Your task to perform on an android device: Empty the shopping cart on amazon. Add "rayovac triple a" to the cart on amazon Image 0: 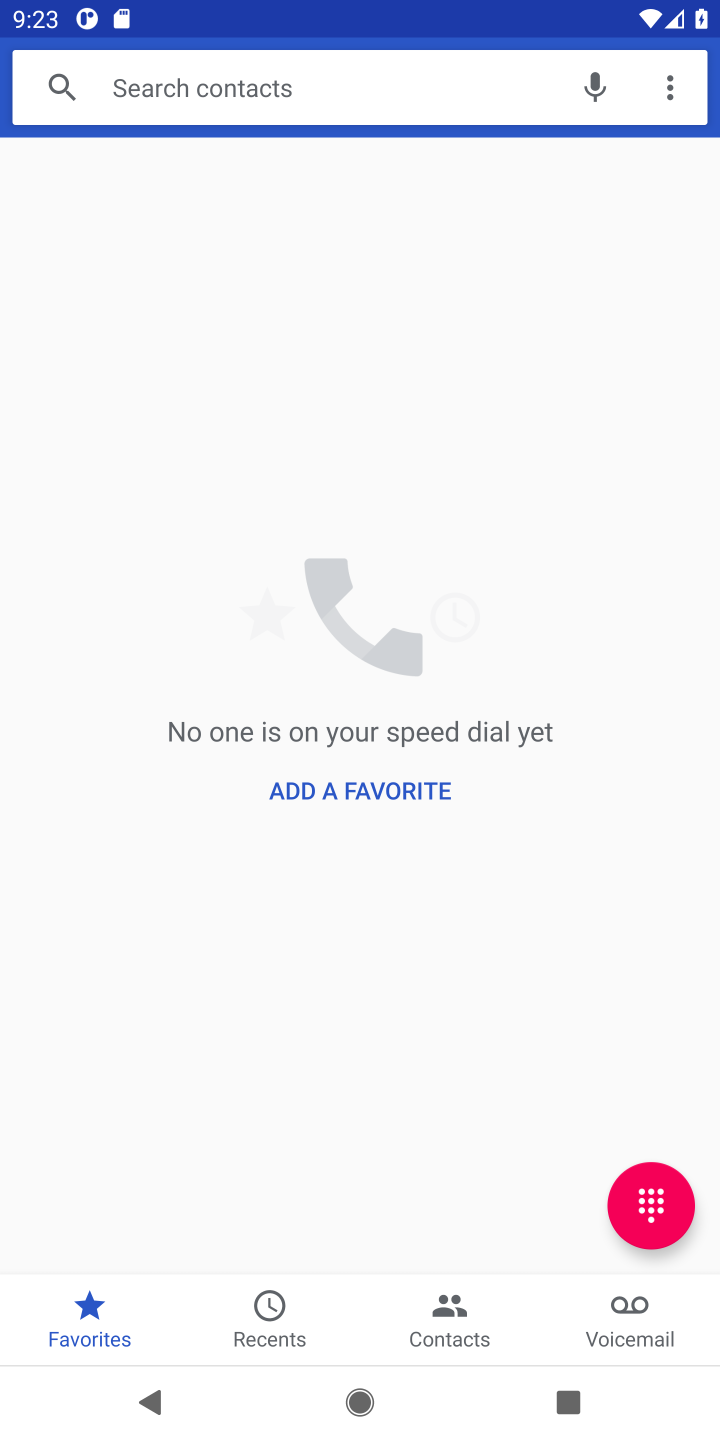
Step 0: press home button
Your task to perform on an android device: Empty the shopping cart on amazon. Add "rayovac triple a" to the cart on amazon Image 1: 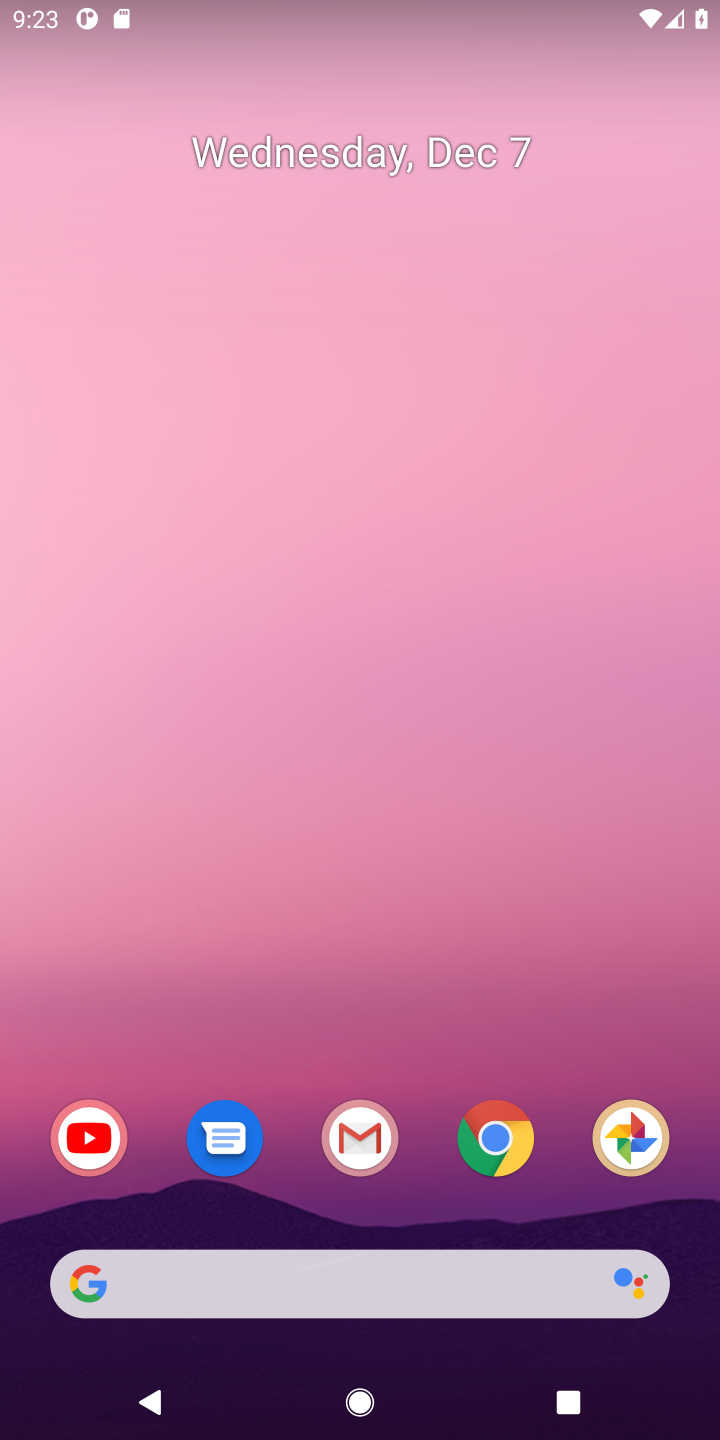
Step 1: click (140, 1292)
Your task to perform on an android device: Empty the shopping cart on amazon. Add "rayovac triple a" to the cart on amazon Image 2: 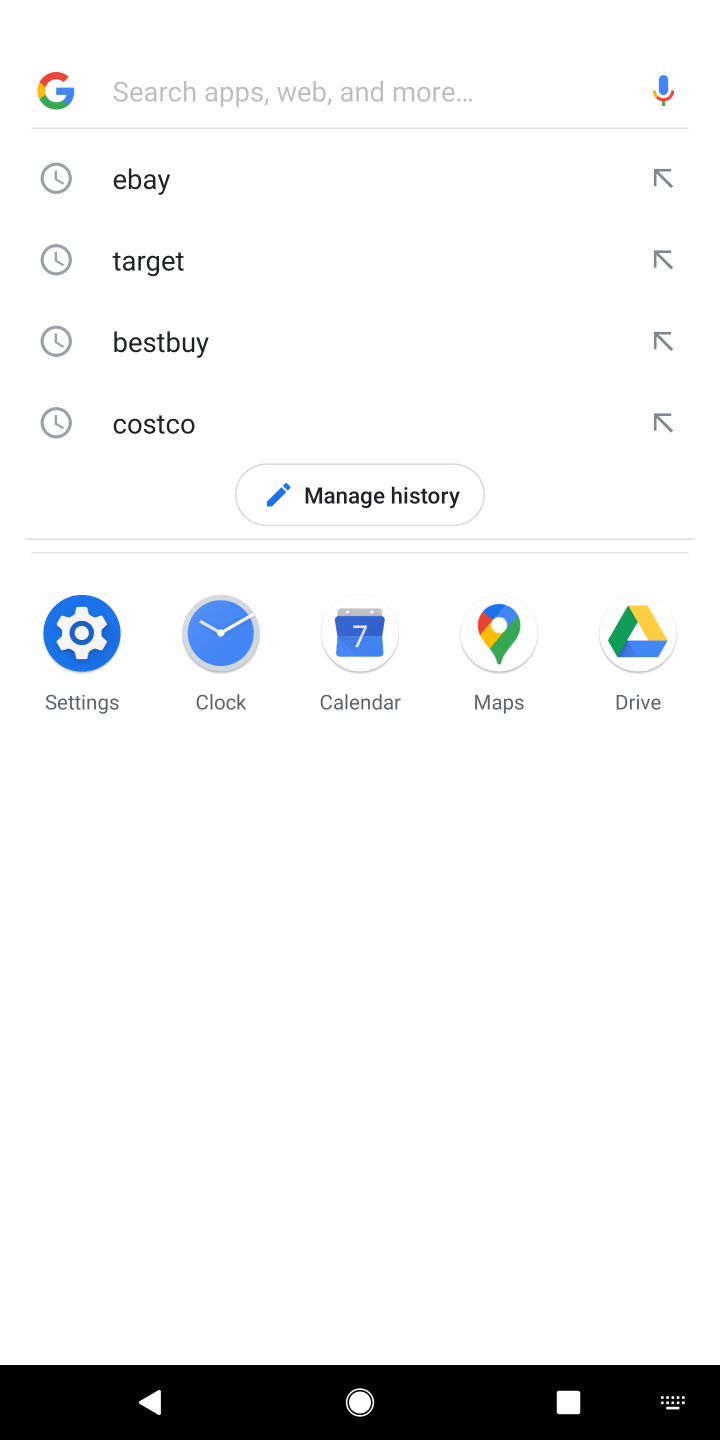
Step 2: type "amazon"
Your task to perform on an android device: Empty the shopping cart on amazon. Add "rayovac triple a" to the cart on amazon Image 3: 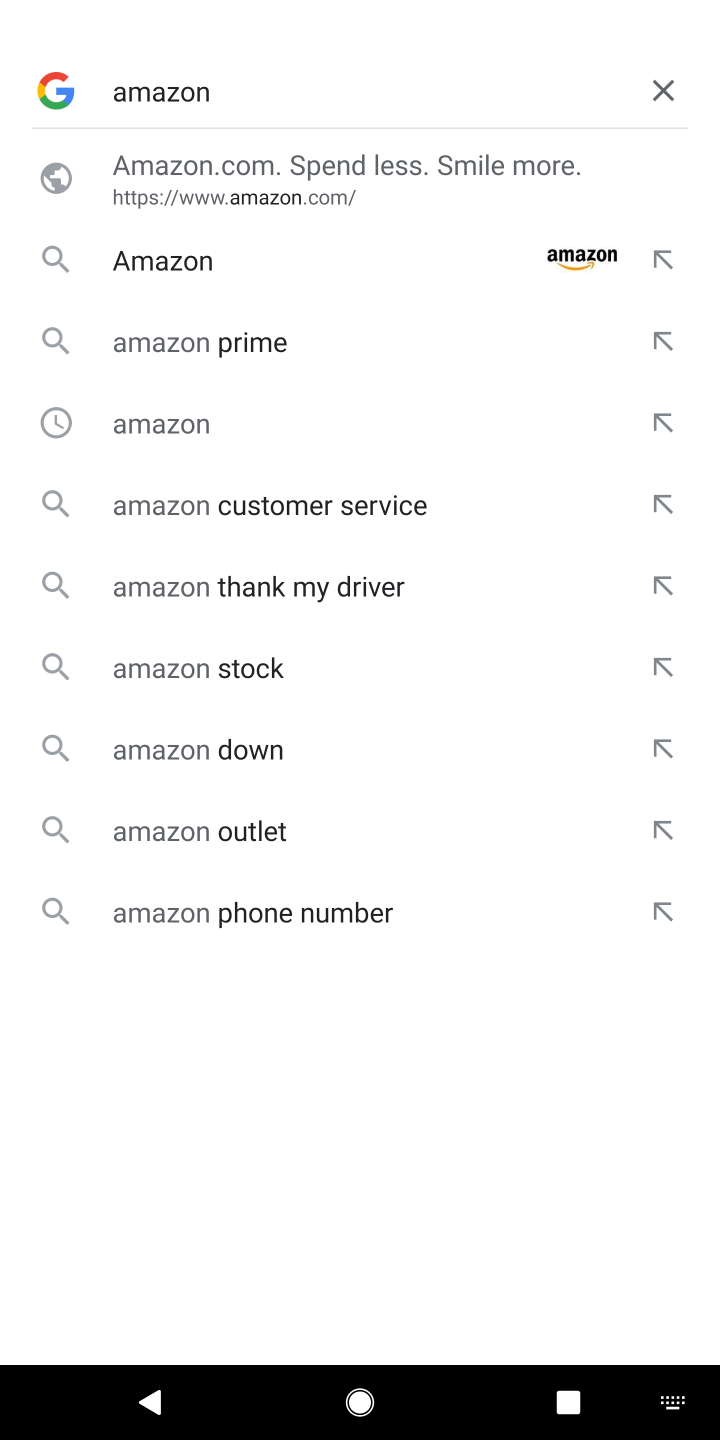
Step 3: press enter
Your task to perform on an android device: Empty the shopping cart on amazon. Add "rayovac triple a" to the cart on amazon Image 4: 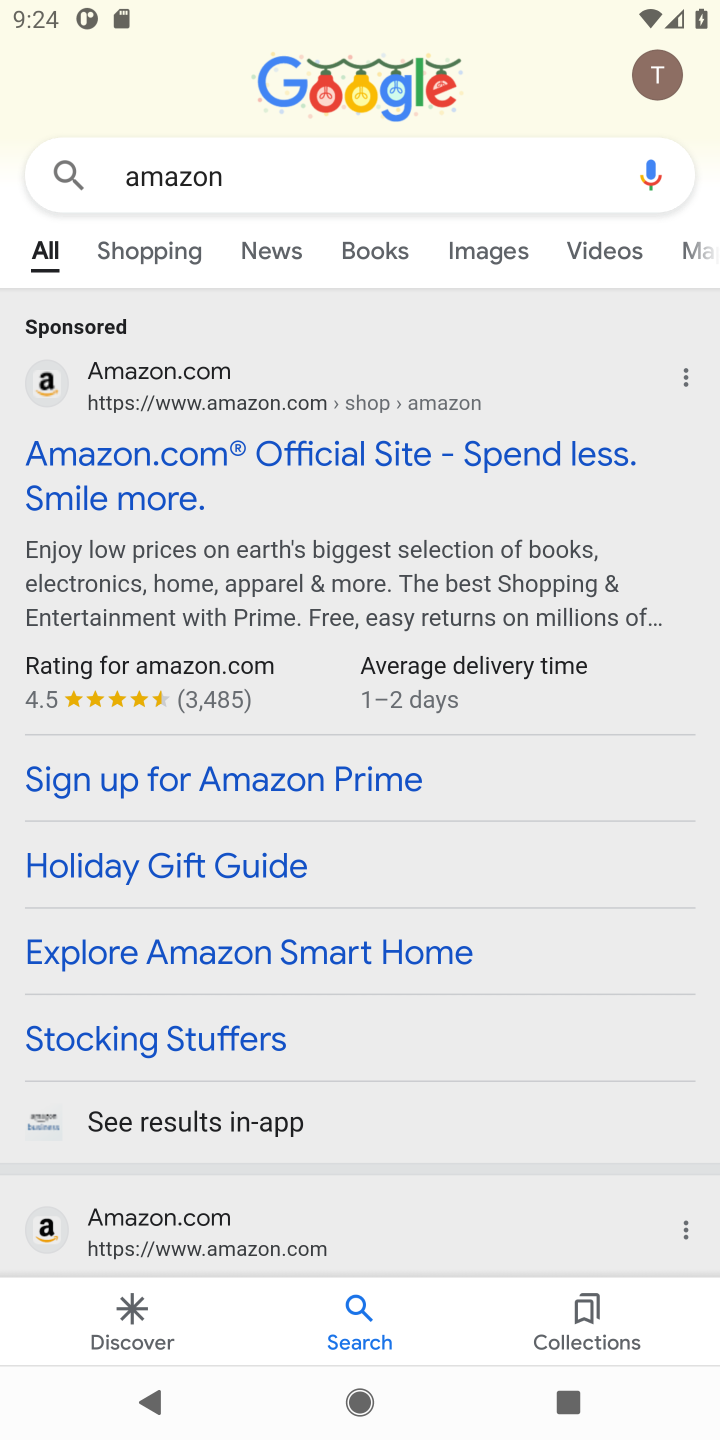
Step 4: click (372, 461)
Your task to perform on an android device: Empty the shopping cart on amazon. Add "rayovac triple a" to the cart on amazon Image 5: 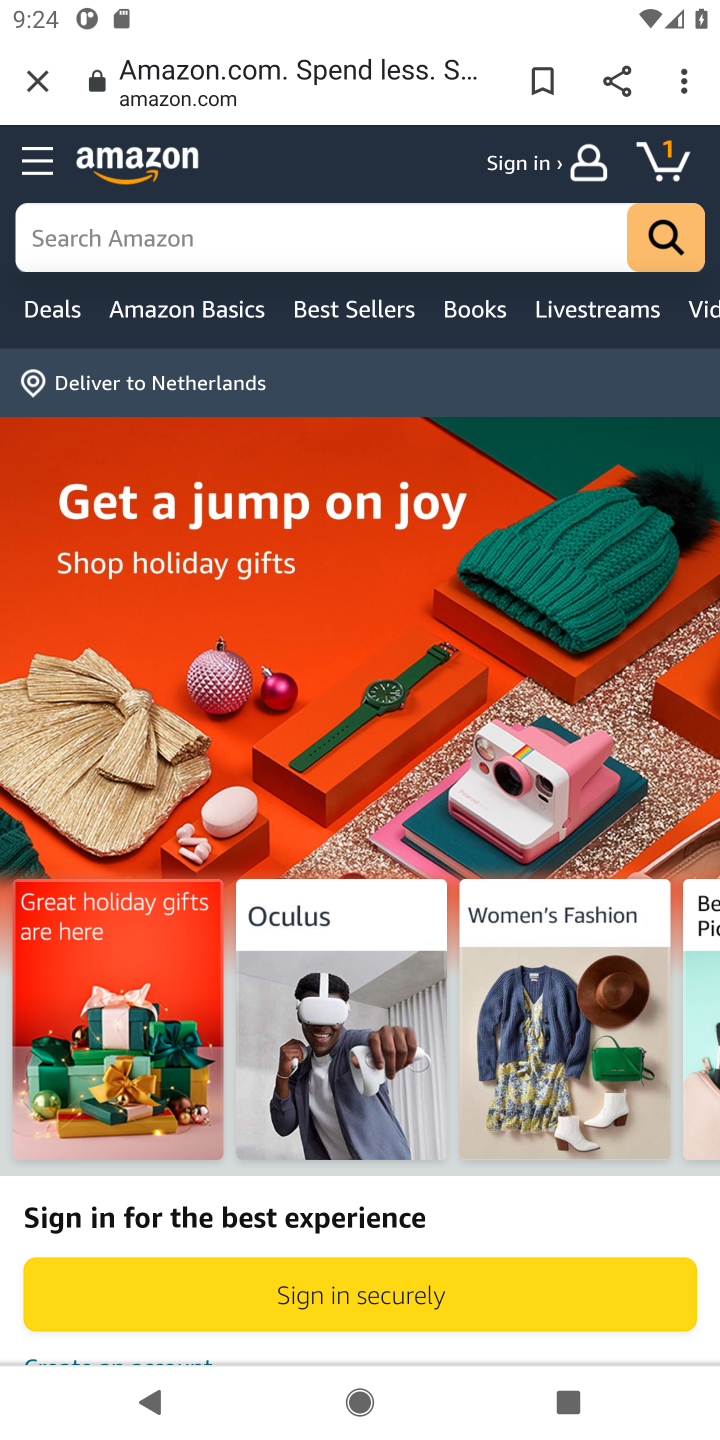
Step 5: click (656, 154)
Your task to perform on an android device: Empty the shopping cart on amazon. Add "rayovac triple a" to the cart on amazon Image 6: 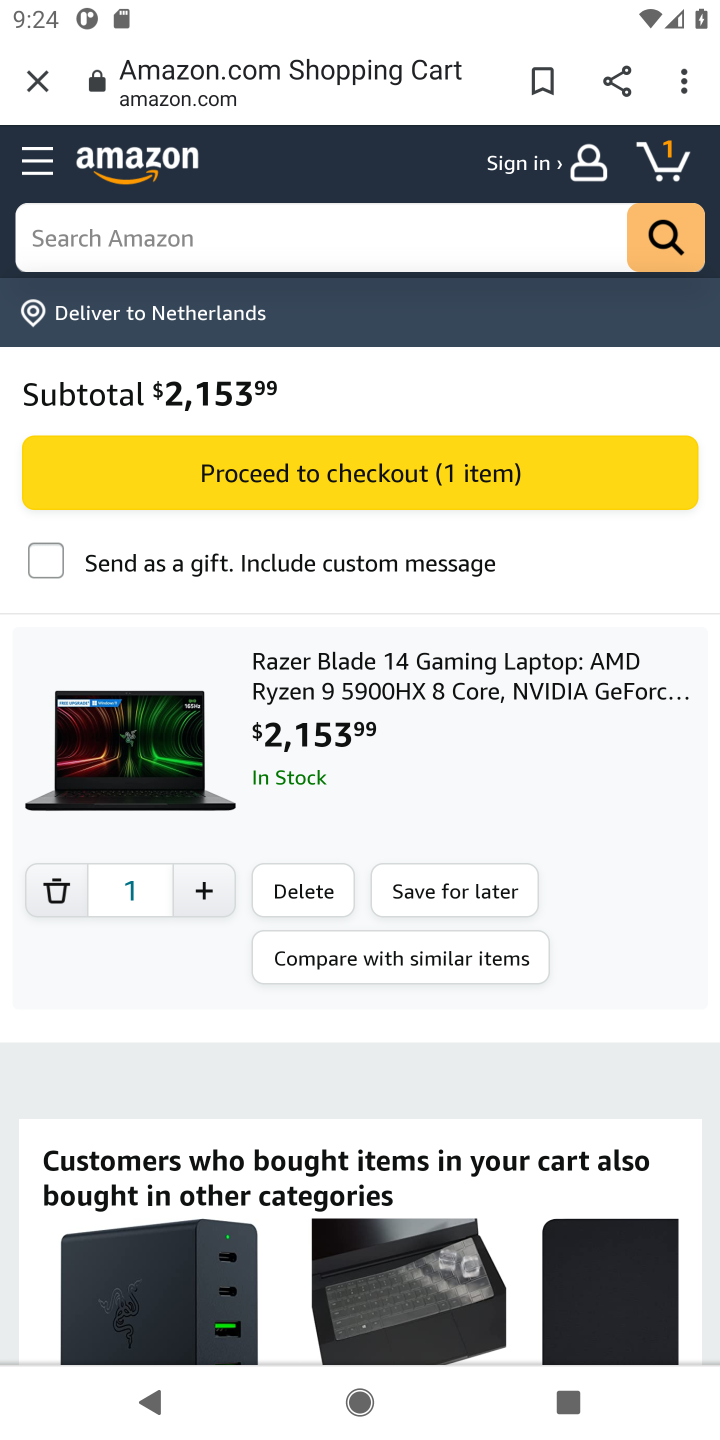
Step 6: click (54, 891)
Your task to perform on an android device: Empty the shopping cart on amazon. Add "rayovac triple a" to the cart on amazon Image 7: 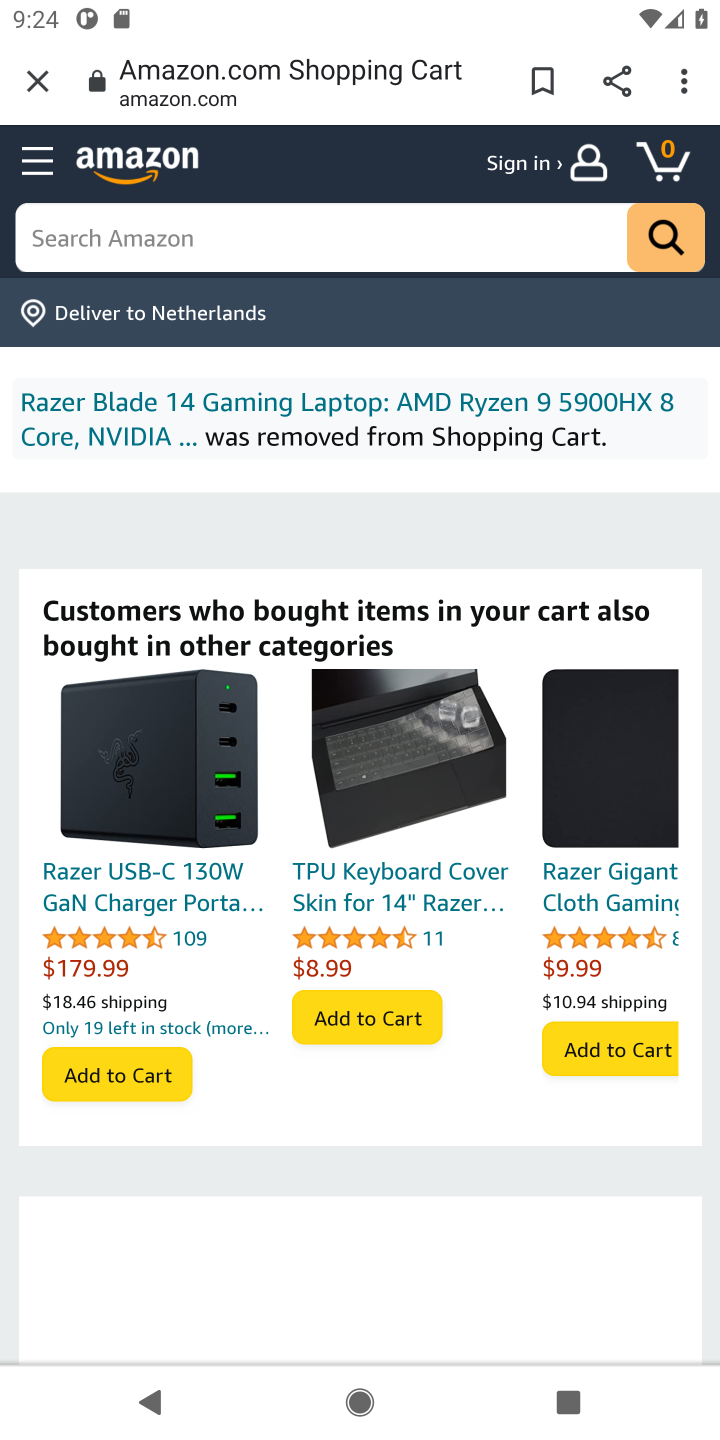
Step 7: click (227, 232)
Your task to perform on an android device: Empty the shopping cart on amazon. Add "rayovac triple a" to the cart on amazon Image 8: 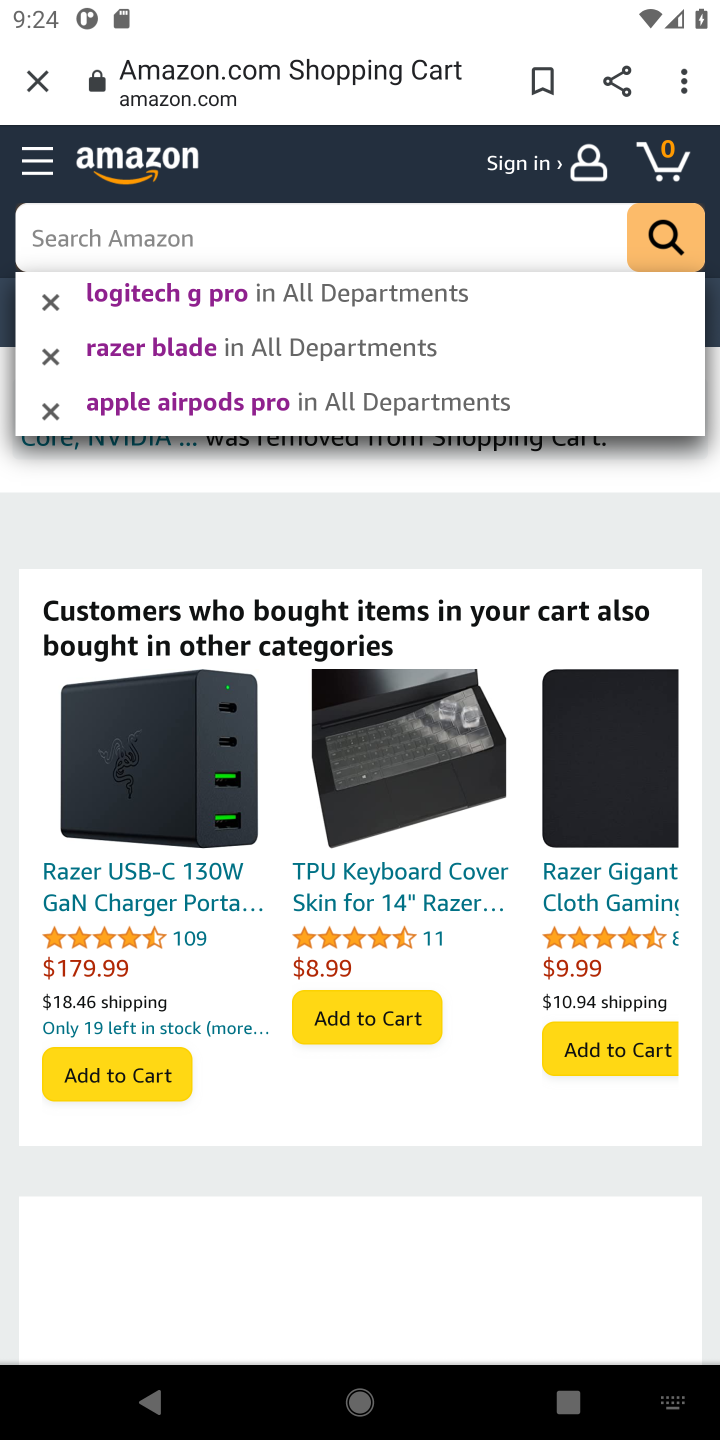
Step 8: type "rayovac triple a"
Your task to perform on an android device: Empty the shopping cart on amazon. Add "rayovac triple a" to the cart on amazon Image 9: 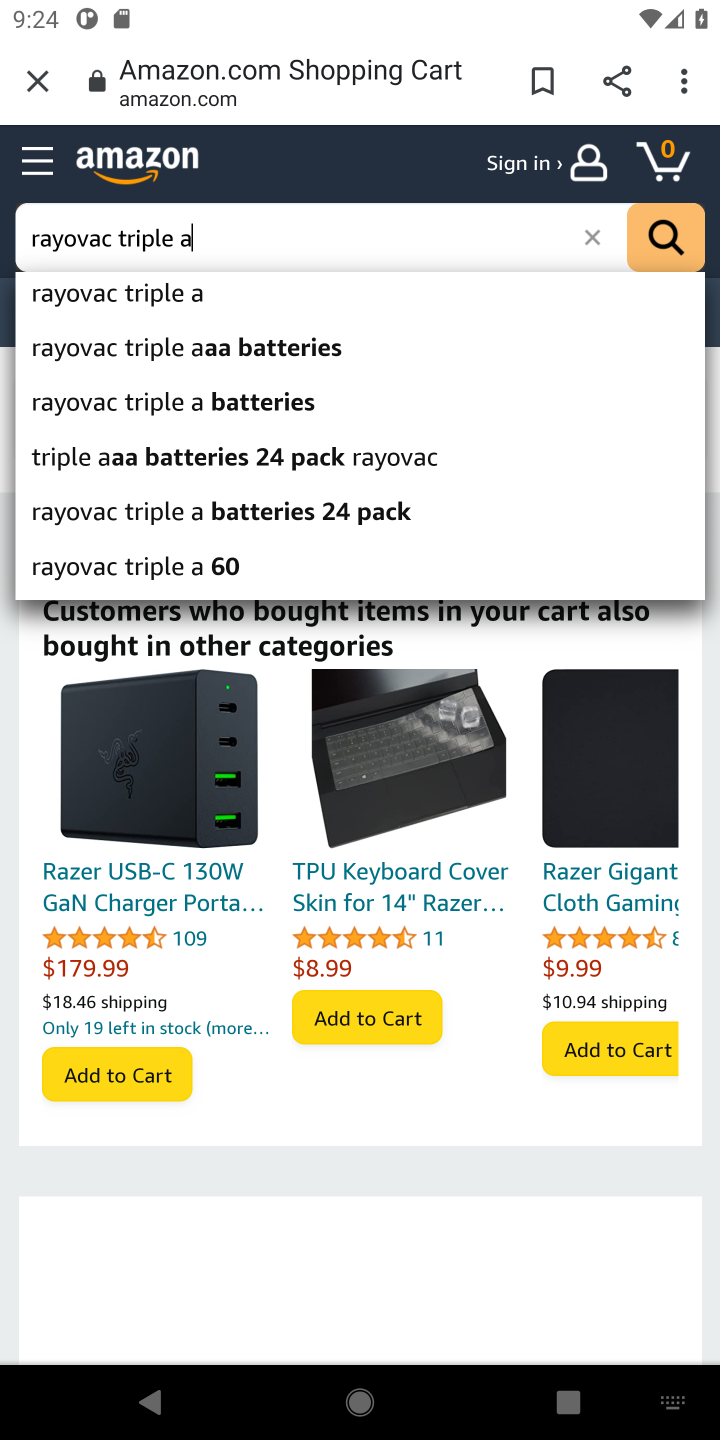
Step 9: press enter
Your task to perform on an android device: Empty the shopping cart on amazon. Add "rayovac triple a" to the cart on amazon Image 10: 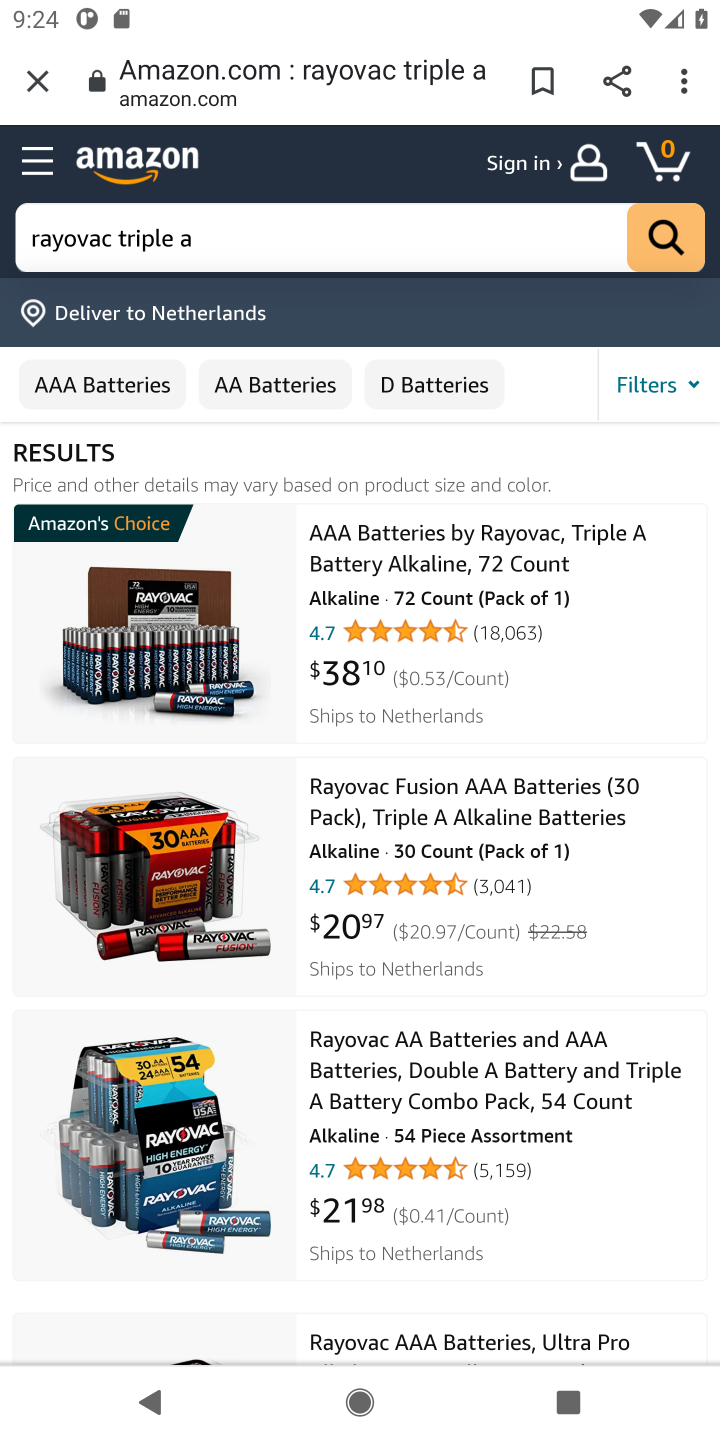
Step 10: click (389, 557)
Your task to perform on an android device: Empty the shopping cart on amazon. Add "rayovac triple a" to the cart on amazon Image 11: 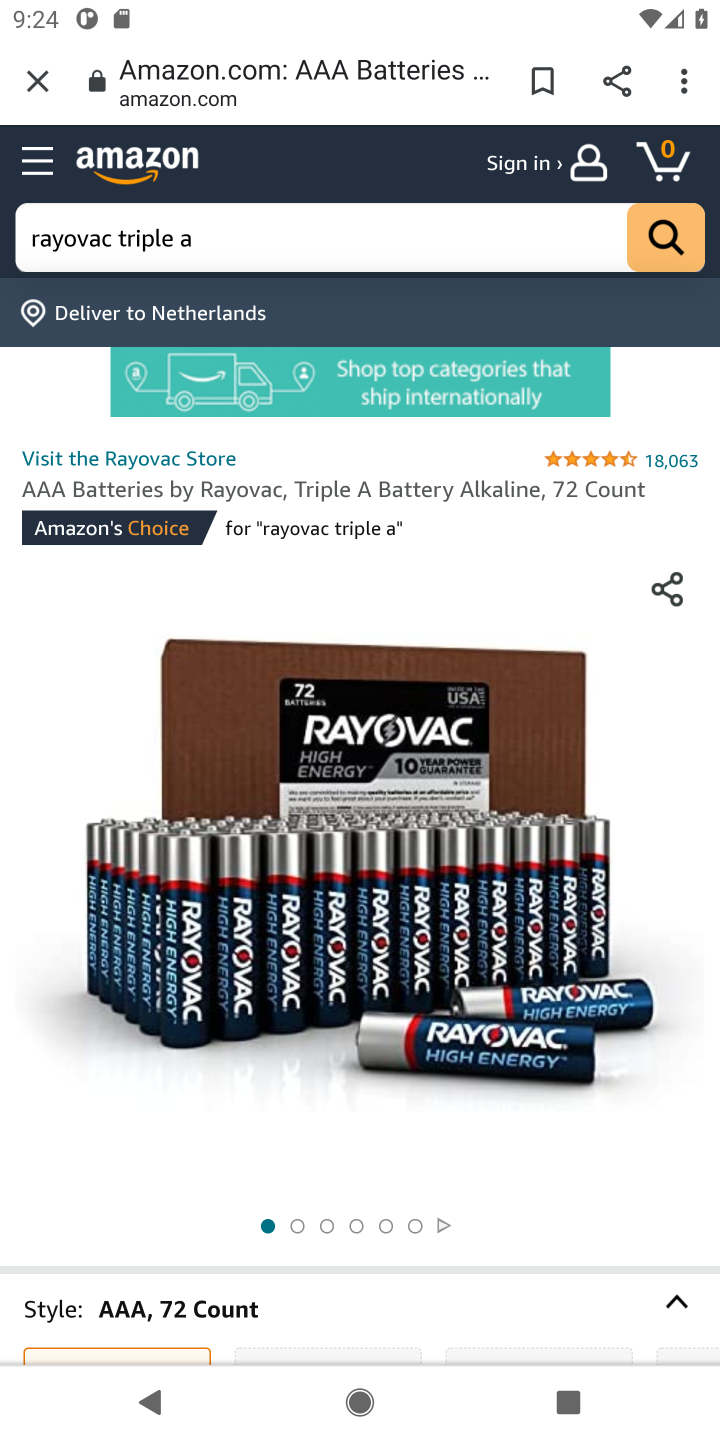
Step 11: drag from (468, 1103) to (497, 457)
Your task to perform on an android device: Empty the shopping cart on amazon. Add "rayovac triple a" to the cart on amazon Image 12: 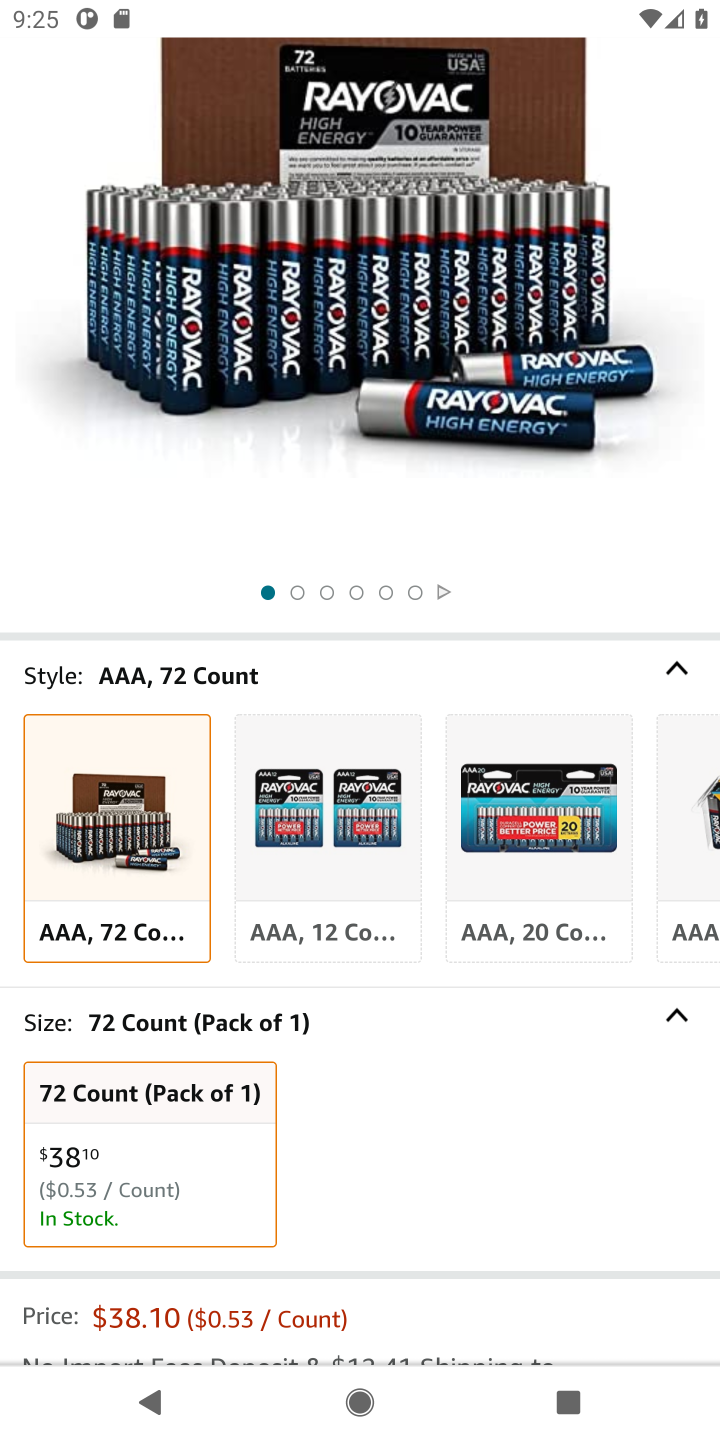
Step 12: drag from (384, 1047) to (441, 413)
Your task to perform on an android device: Empty the shopping cart on amazon. Add "rayovac triple a" to the cart on amazon Image 13: 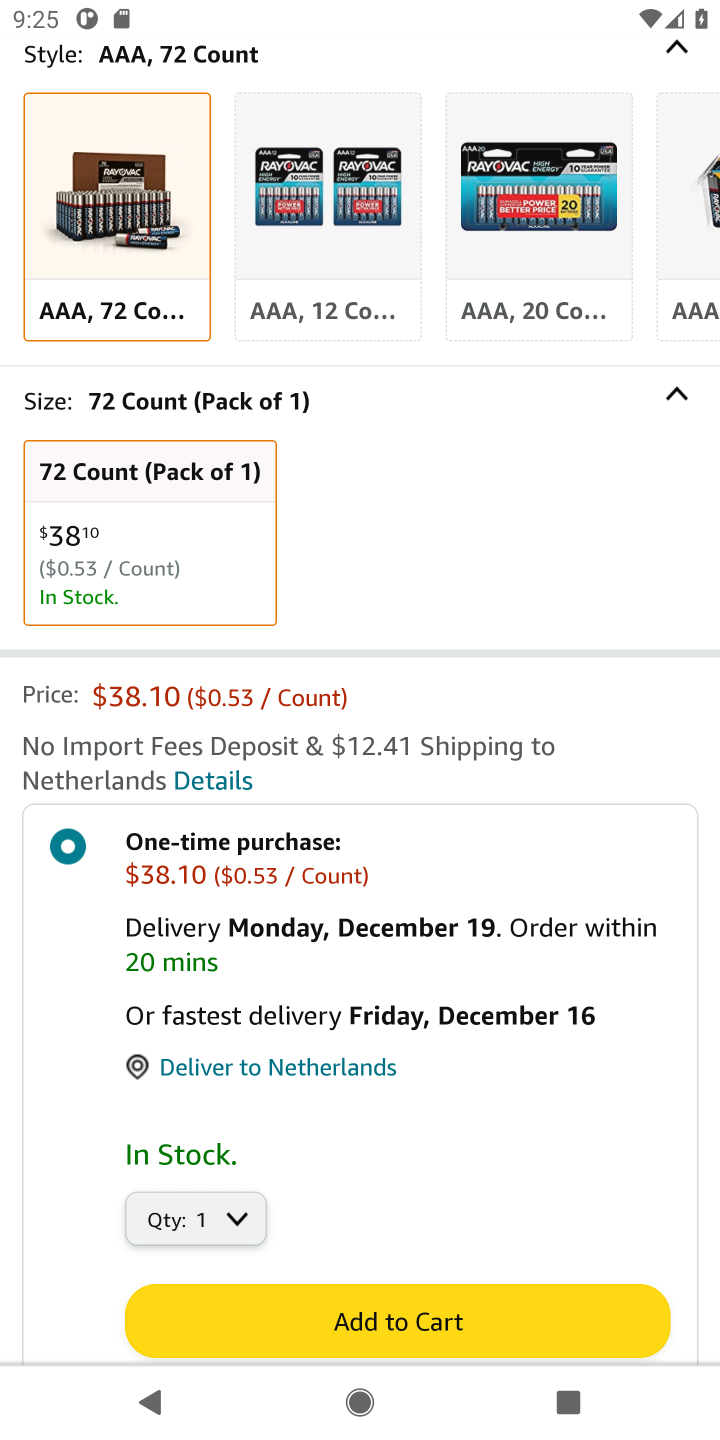
Step 13: drag from (373, 1047) to (443, 434)
Your task to perform on an android device: Empty the shopping cart on amazon. Add "rayovac triple a" to the cart on amazon Image 14: 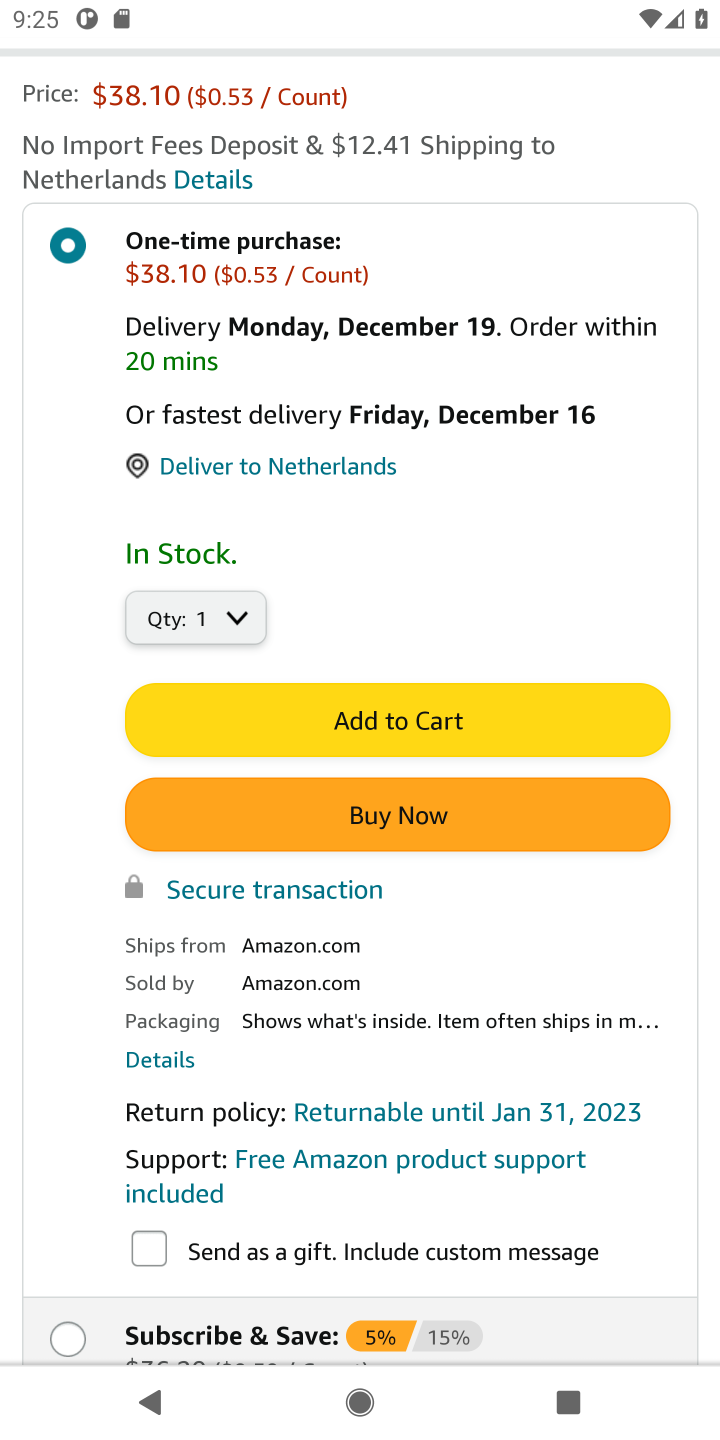
Step 14: click (377, 714)
Your task to perform on an android device: Empty the shopping cart on amazon. Add "rayovac triple a" to the cart on amazon Image 15: 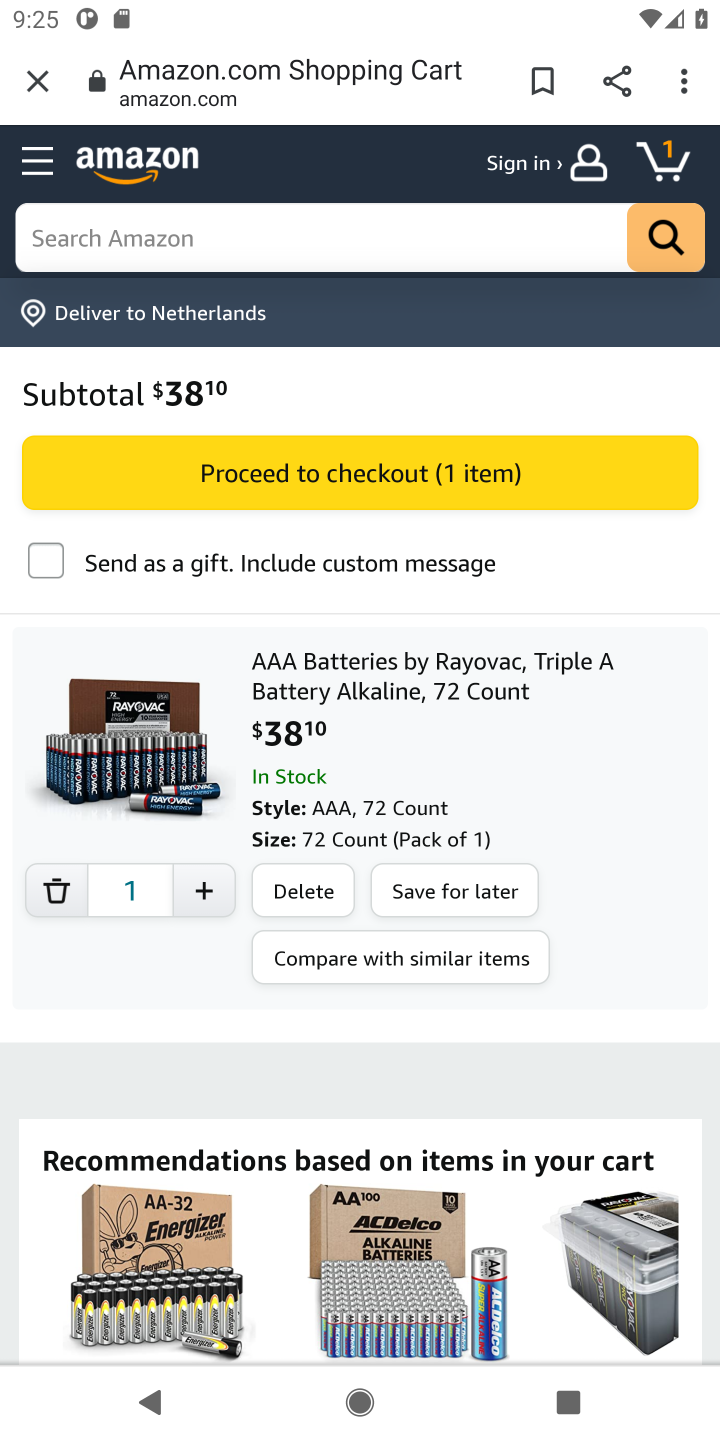
Step 15: task complete